Your task to perform on an android device: Open settings on Google Maps Image 0: 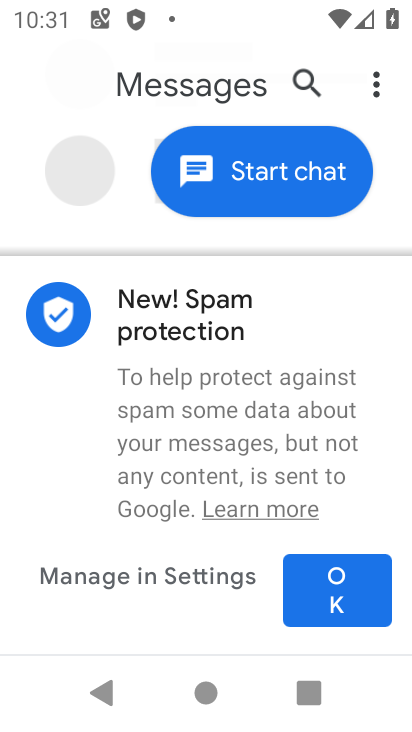
Step 0: press home button
Your task to perform on an android device: Open settings on Google Maps Image 1: 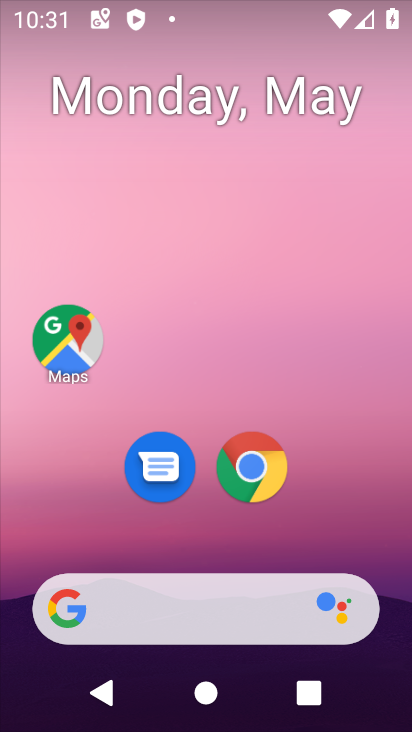
Step 1: click (66, 341)
Your task to perform on an android device: Open settings on Google Maps Image 2: 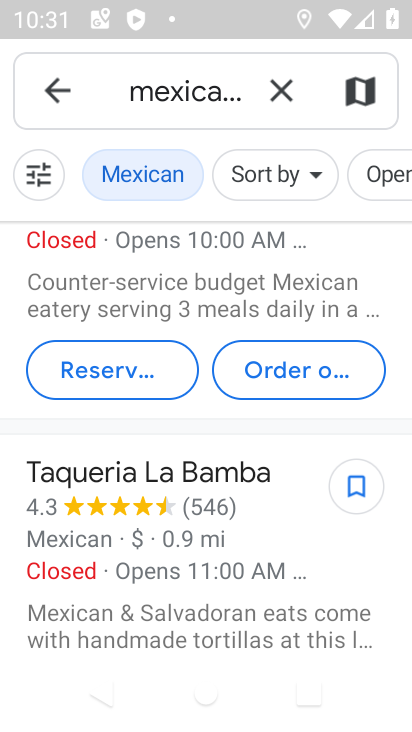
Step 2: click (276, 85)
Your task to perform on an android device: Open settings on Google Maps Image 3: 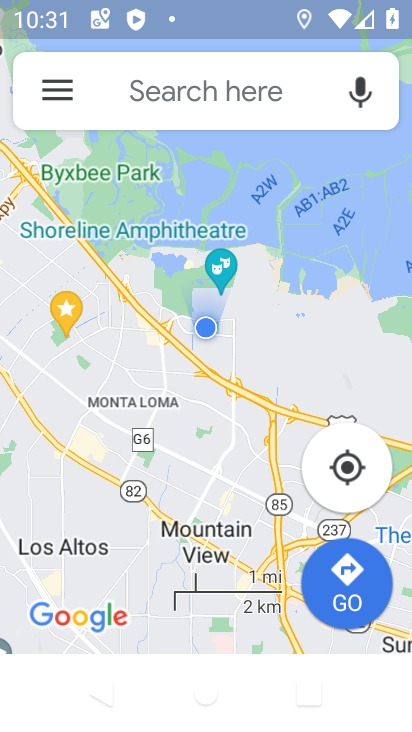
Step 3: click (51, 91)
Your task to perform on an android device: Open settings on Google Maps Image 4: 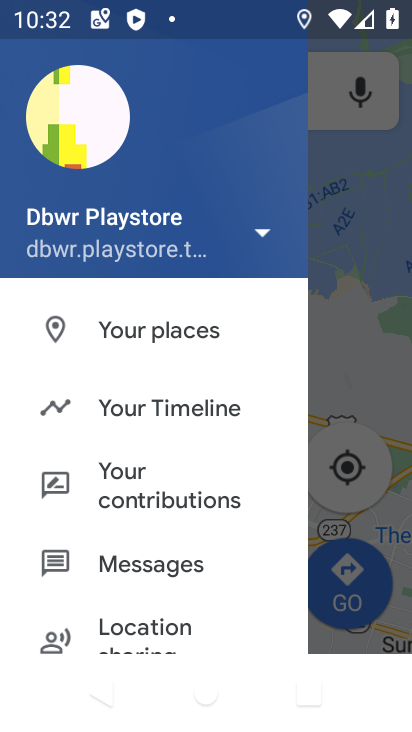
Step 4: drag from (228, 598) to (232, 141)
Your task to perform on an android device: Open settings on Google Maps Image 5: 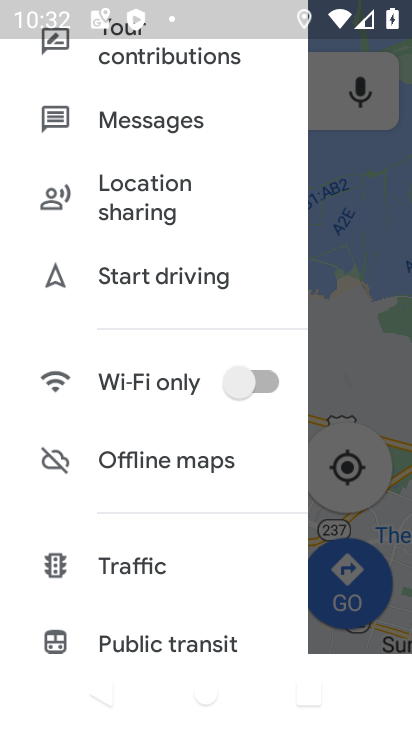
Step 5: drag from (197, 601) to (191, 233)
Your task to perform on an android device: Open settings on Google Maps Image 6: 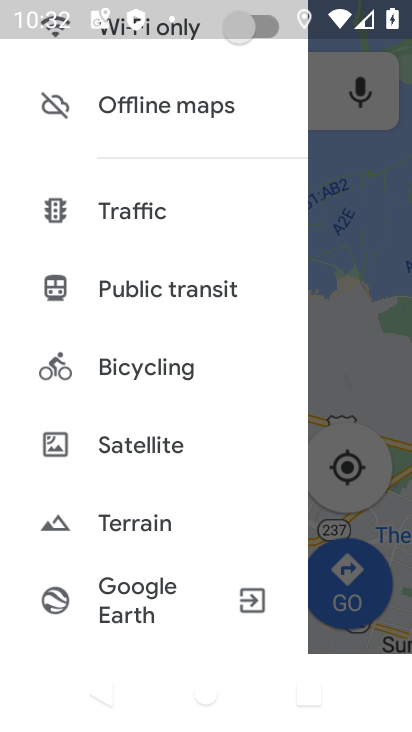
Step 6: drag from (222, 536) to (184, 139)
Your task to perform on an android device: Open settings on Google Maps Image 7: 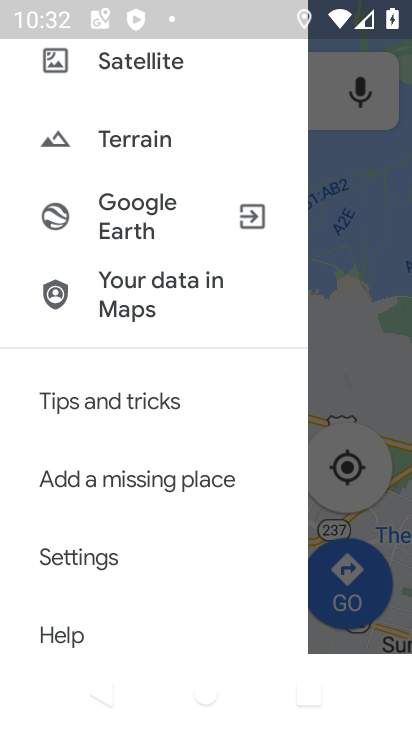
Step 7: click (92, 564)
Your task to perform on an android device: Open settings on Google Maps Image 8: 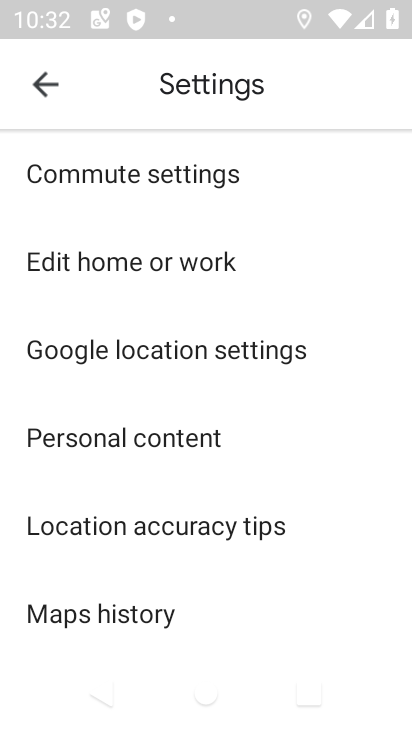
Step 8: task complete